Your task to perform on an android device: Open Chrome and go to settings Image 0: 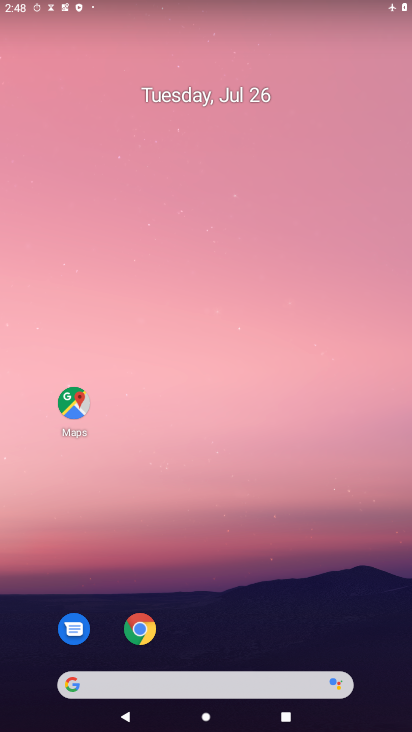
Step 0: drag from (277, 680) to (258, 4)
Your task to perform on an android device: Open Chrome and go to settings Image 1: 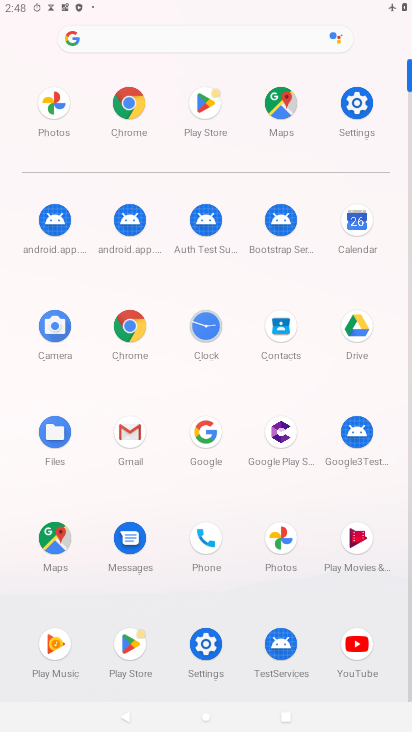
Step 1: click (119, 319)
Your task to perform on an android device: Open Chrome and go to settings Image 2: 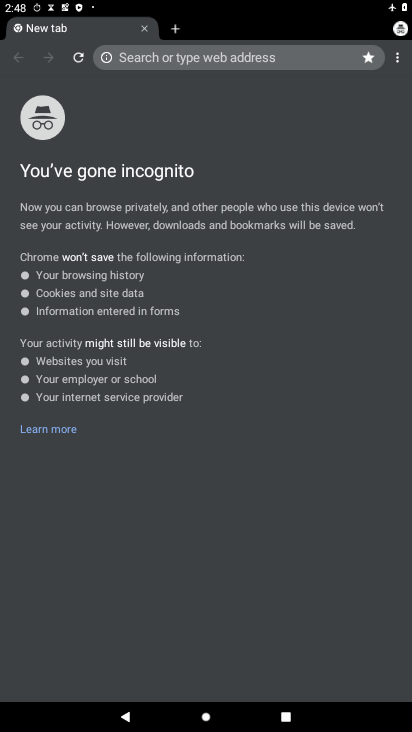
Step 2: press back button
Your task to perform on an android device: Open Chrome and go to settings Image 3: 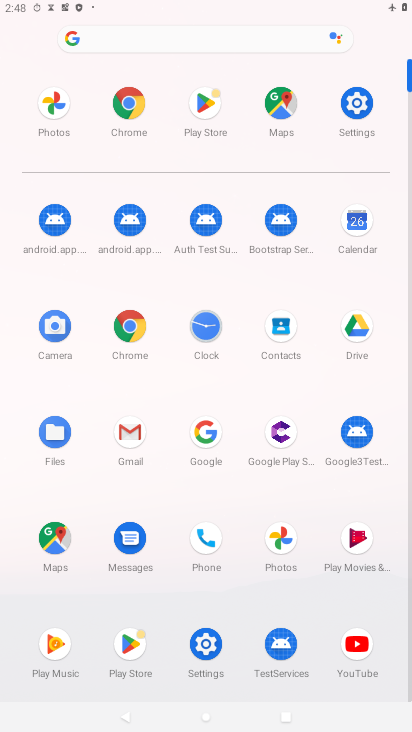
Step 3: click (137, 327)
Your task to perform on an android device: Open Chrome and go to settings Image 4: 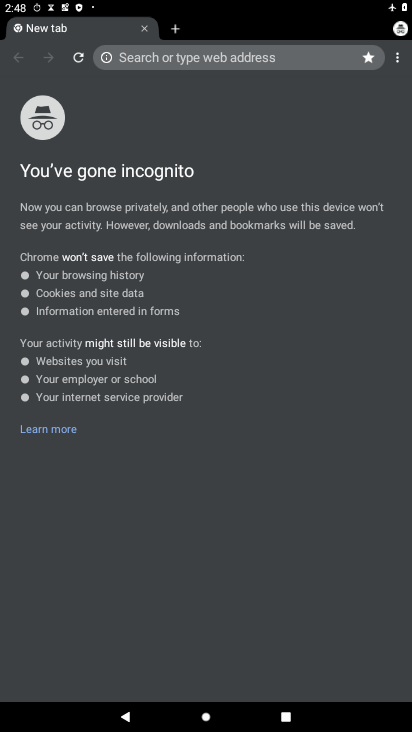
Step 4: task complete